Your task to perform on an android device: Show me recent news Image 0: 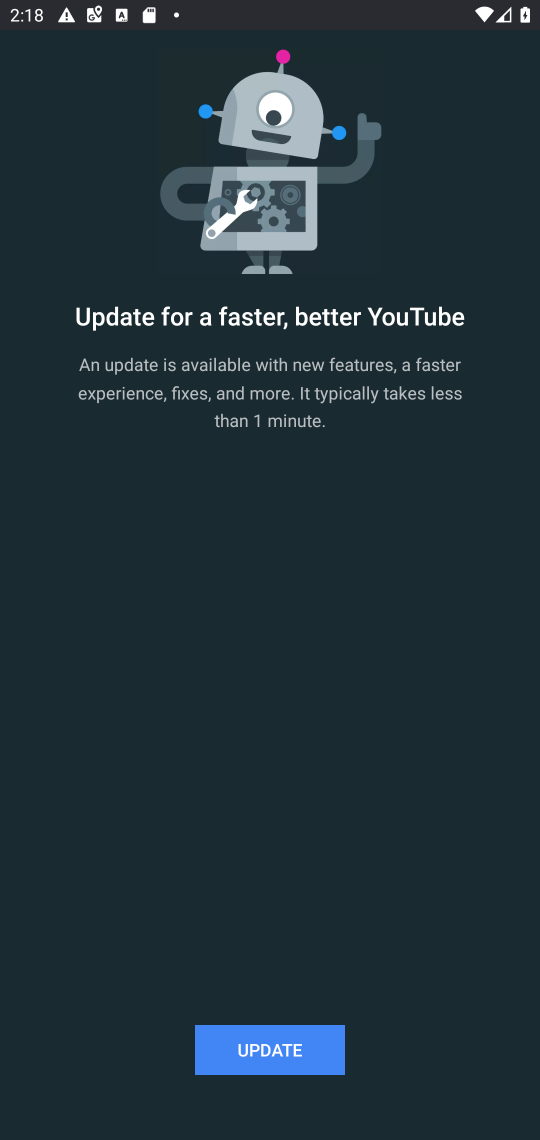
Step 0: press home button
Your task to perform on an android device: Show me recent news Image 1: 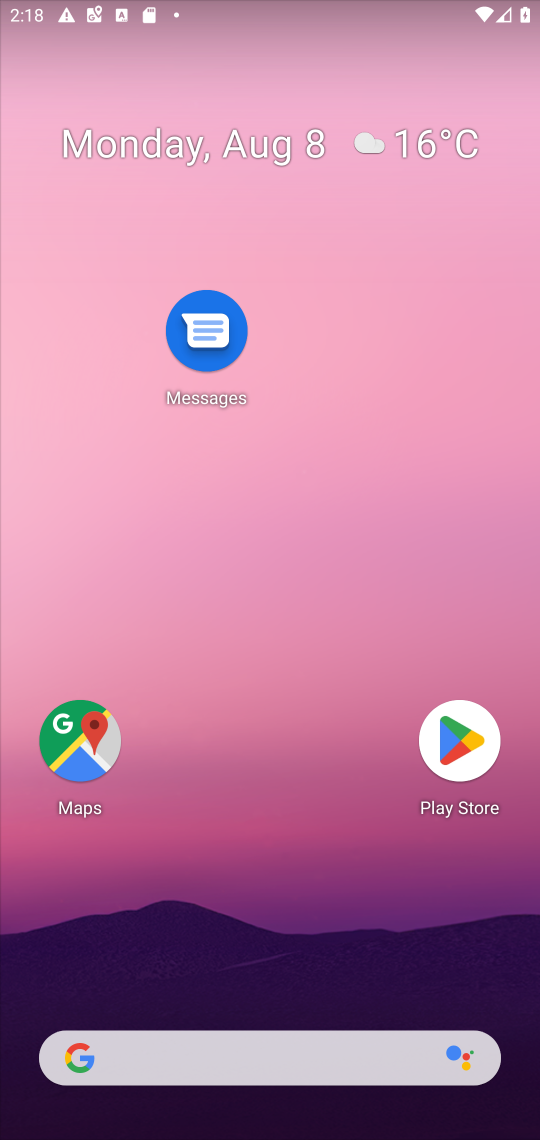
Step 1: drag from (299, 1046) to (253, 296)
Your task to perform on an android device: Show me recent news Image 2: 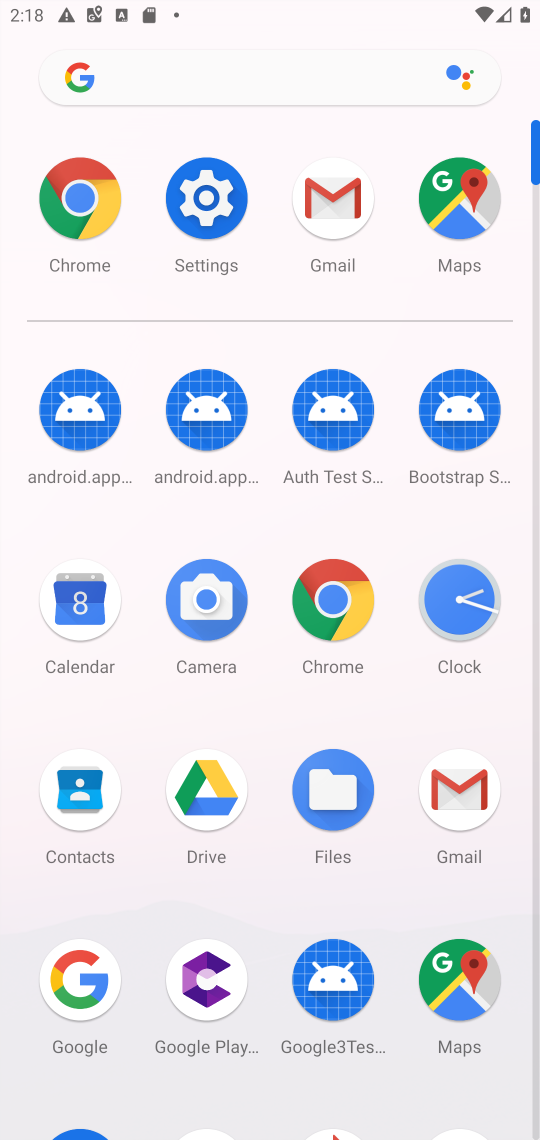
Step 2: click (328, 589)
Your task to perform on an android device: Show me recent news Image 3: 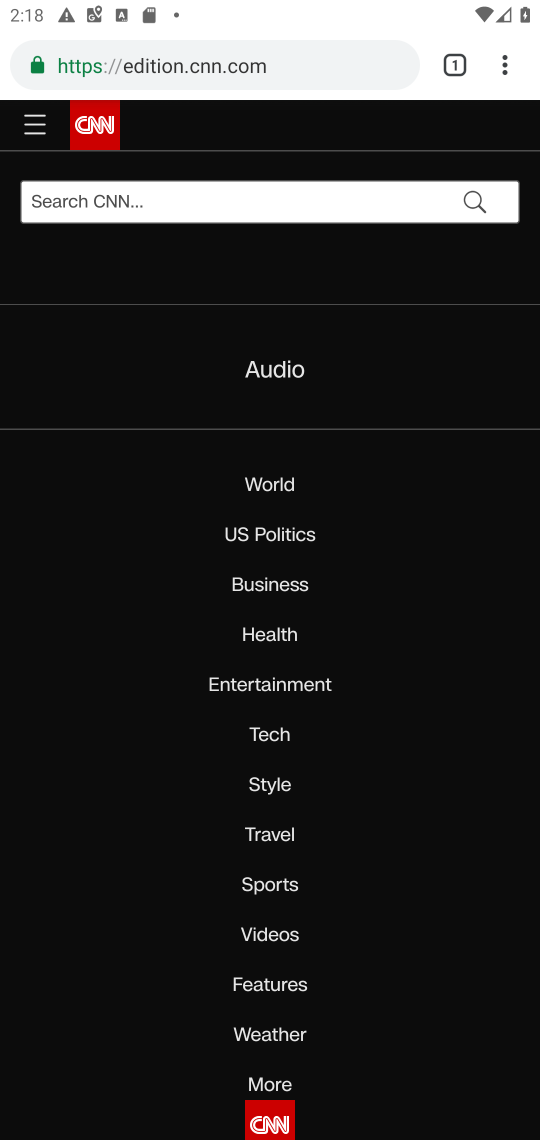
Step 3: click (251, 89)
Your task to perform on an android device: Show me recent news Image 4: 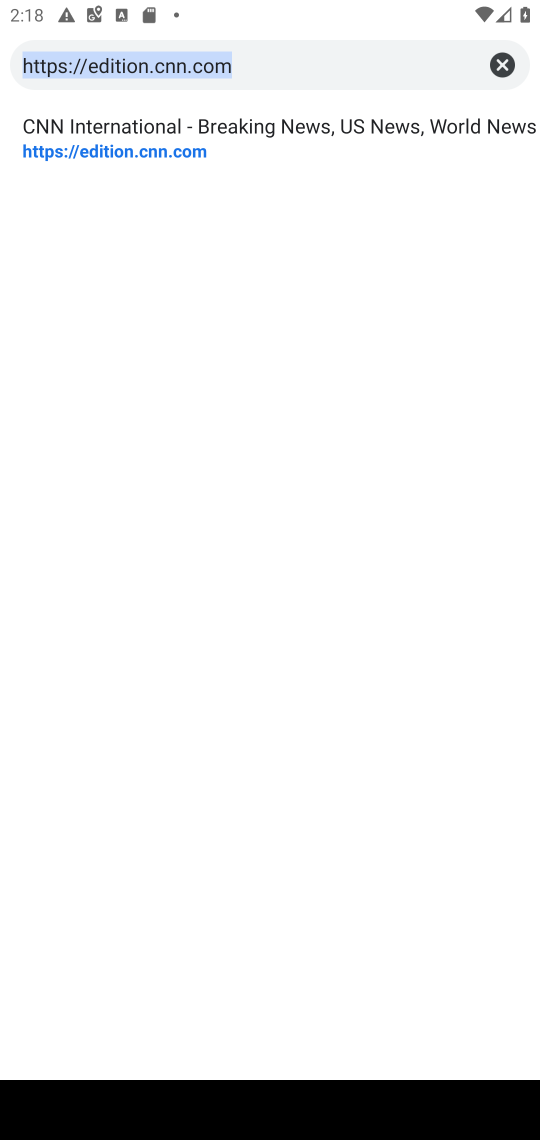
Step 4: type "show mr recent news"
Your task to perform on an android device: Show me recent news Image 5: 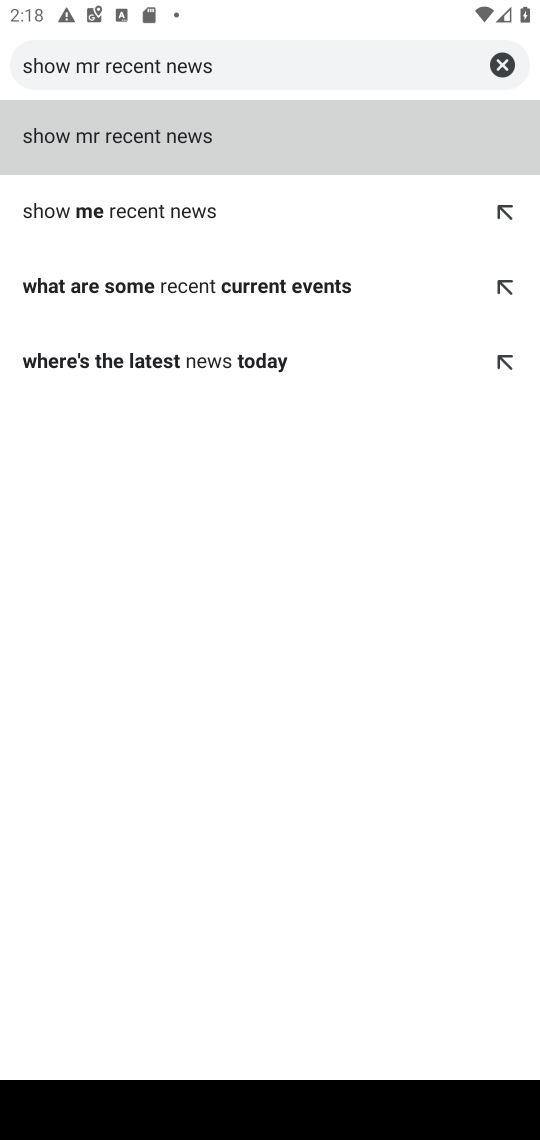
Step 5: click (335, 119)
Your task to perform on an android device: Show me recent news Image 6: 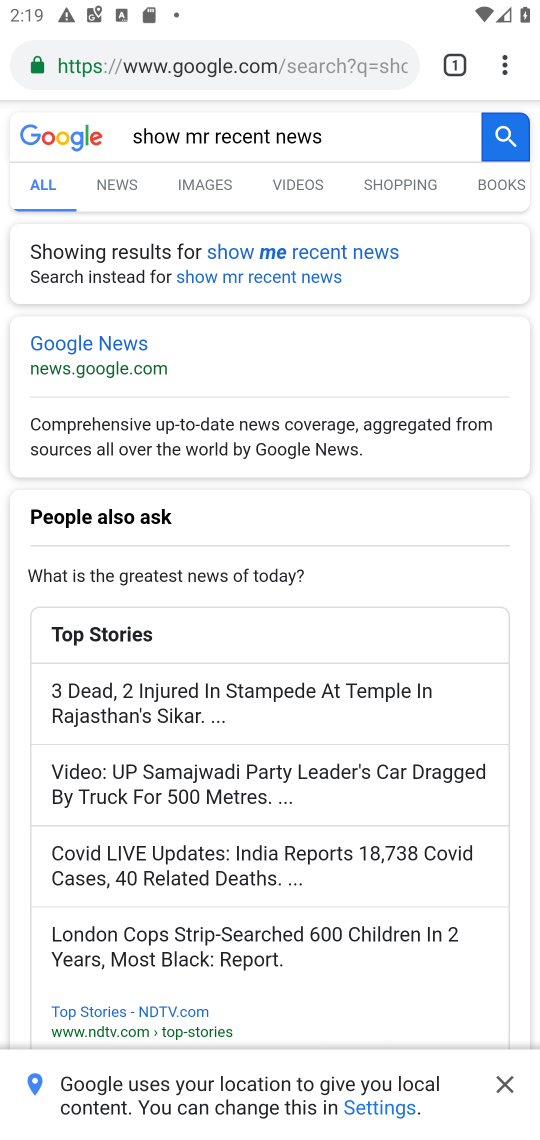
Step 6: task complete